Your task to perform on an android device: When is my next meeting? Image 0: 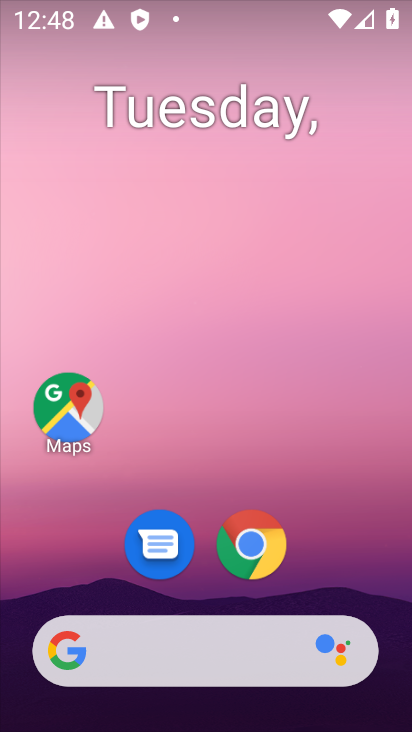
Step 0: click (236, 115)
Your task to perform on an android device: When is my next meeting? Image 1: 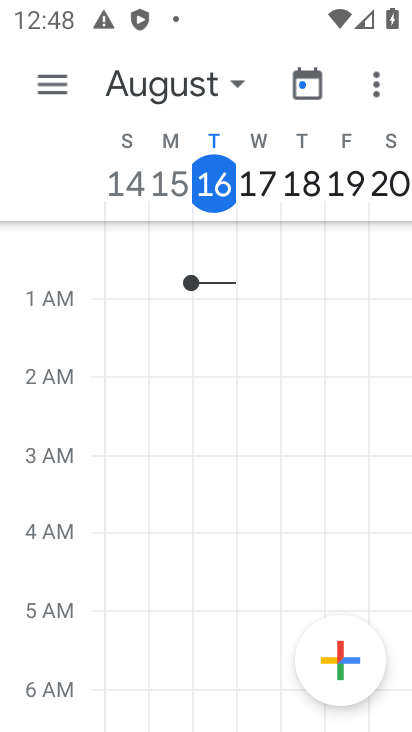
Step 1: task complete